Your task to perform on an android device: choose inbox layout in the gmail app Image 0: 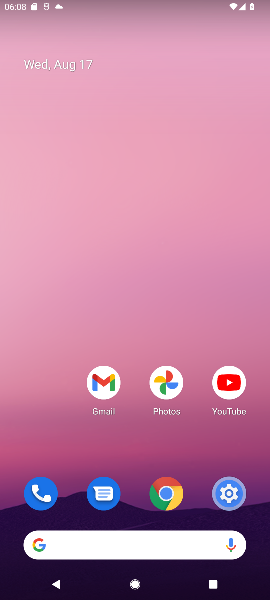
Step 0: press home button
Your task to perform on an android device: choose inbox layout in the gmail app Image 1: 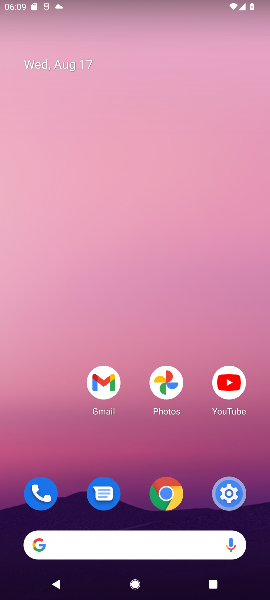
Step 1: click (93, 393)
Your task to perform on an android device: choose inbox layout in the gmail app Image 2: 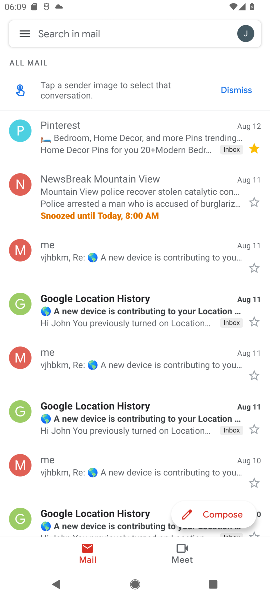
Step 2: click (39, 26)
Your task to perform on an android device: choose inbox layout in the gmail app Image 3: 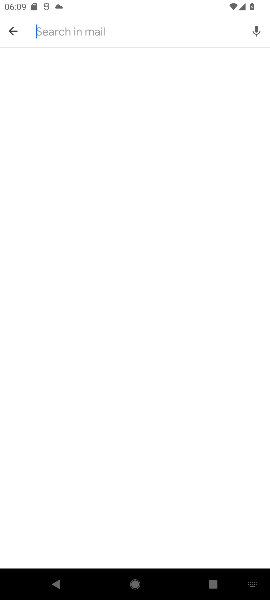
Step 3: press back button
Your task to perform on an android device: choose inbox layout in the gmail app Image 4: 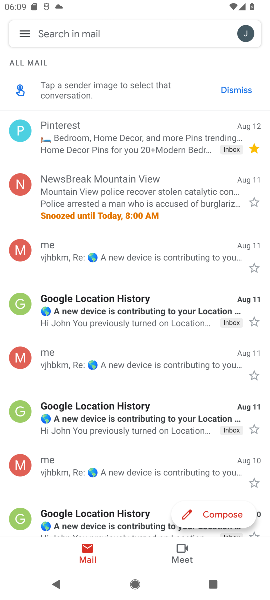
Step 4: click (17, 34)
Your task to perform on an android device: choose inbox layout in the gmail app Image 5: 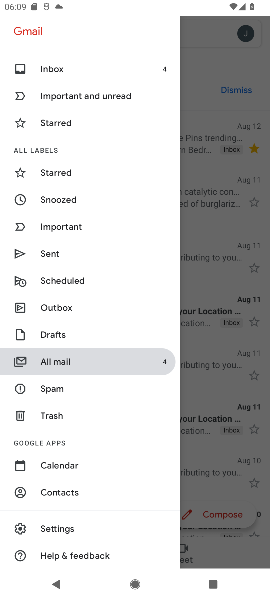
Step 5: click (77, 528)
Your task to perform on an android device: choose inbox layout in the gmail app Image 6: 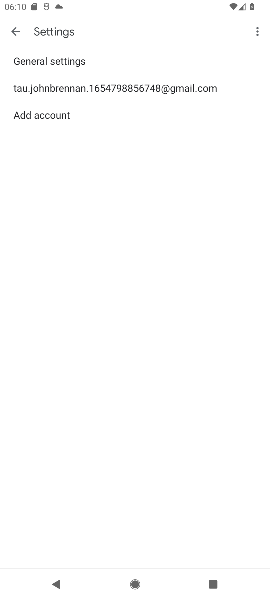
Step 6: click (150, 88)
Your task to perform on an android device: choose inbox layout in the gmail app Image 7: 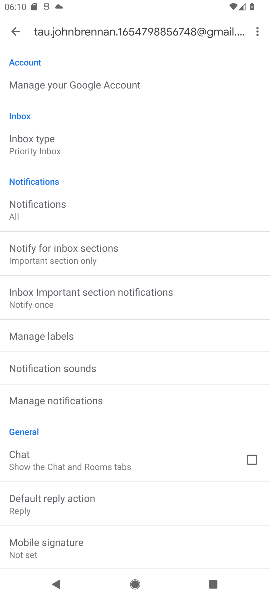
Step 7: click (46, 146)
Your task to perform on an android device: choose inbox layout in the gmail app Image 8: 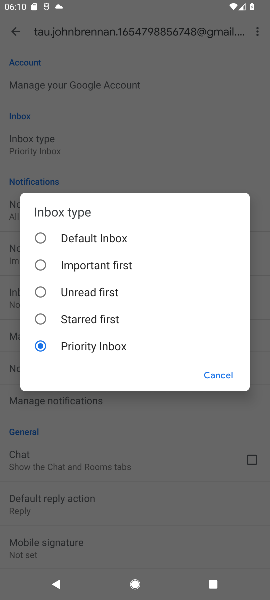
Step 8: click (45, 261)
Your task to perform on an android device: choose inbox layout in the gmail app Image 9: 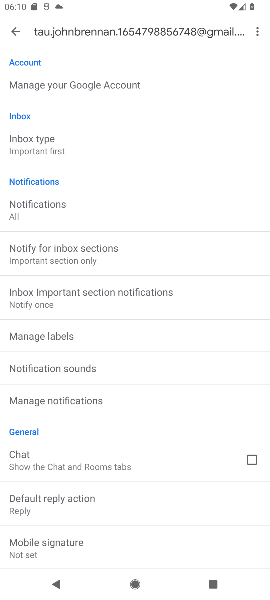
Step 9: task complete